Your task to perform on an android device: Search for "usb-c" on costco, select the first entry, add it to the cart, then select checkout. Image 0: 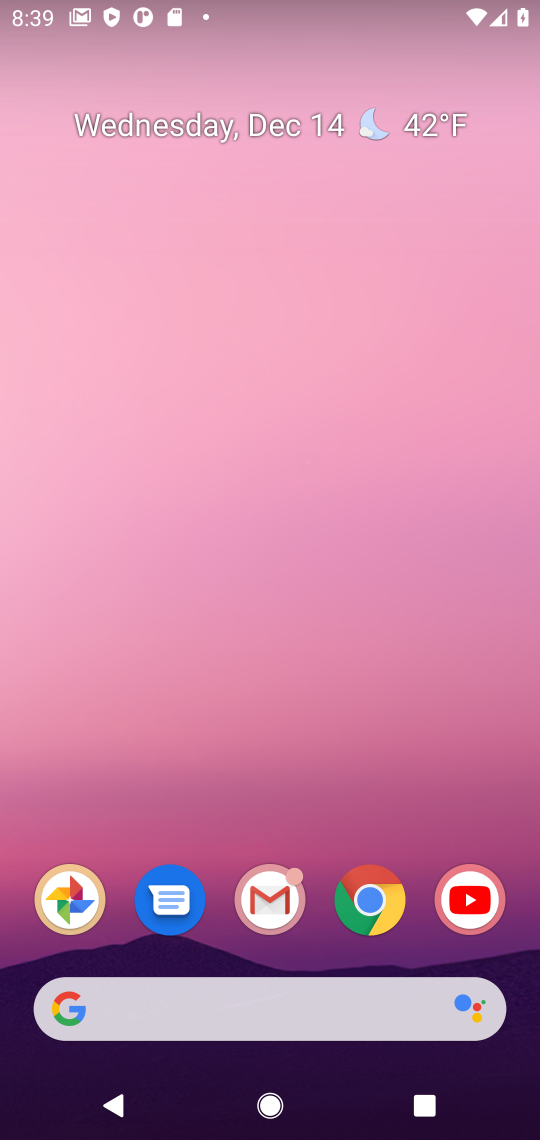
Step 0: click (366, 902)
Your task to perform on an android device: Search for "usb-c" on costco, select the first entry, add it to the cart, then select checkout. Image 1: 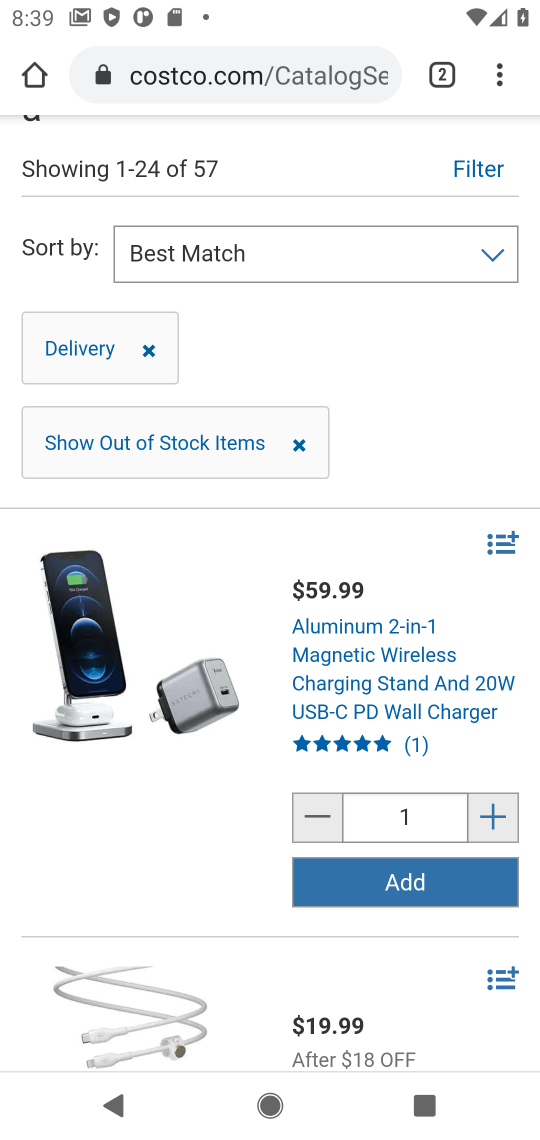
Step 1: press back button
Your task to perform on an android device: Search for "usb-c" on costco, select the first entry, add it to the cart, then select checkout. Image 2: 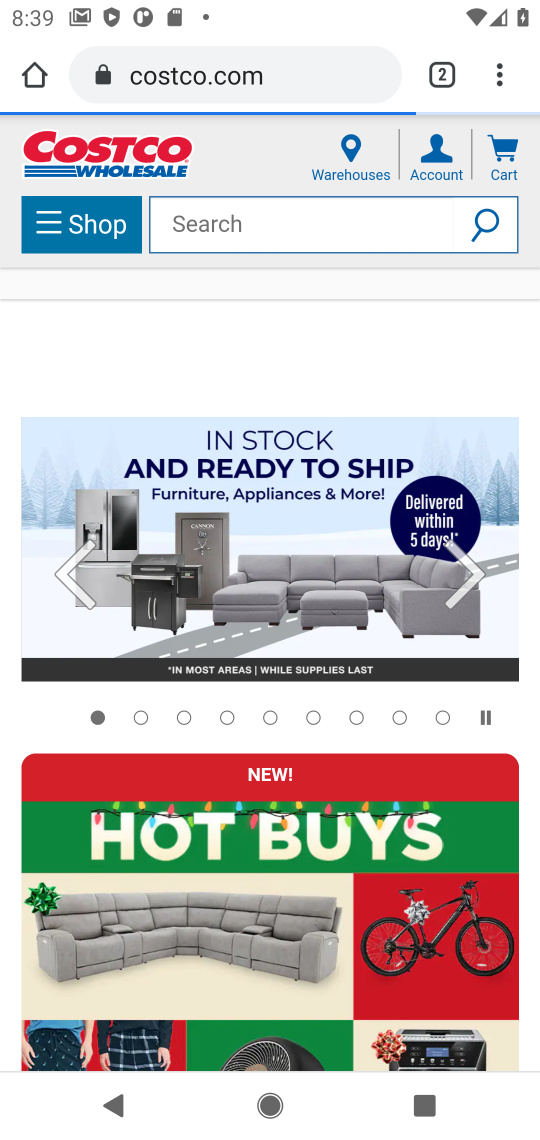
Step 2: click (365, 224)
Your task to perform on an android device: Search for "usb-c" on costco, select the first entry, add it to the cart, then select checkout. Image 3: 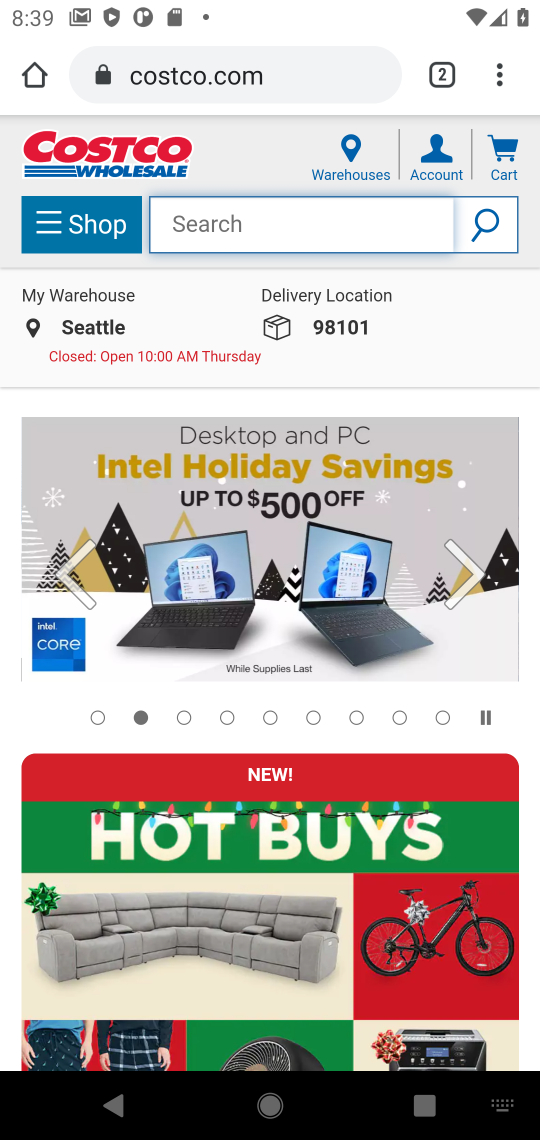
Step 3: type "usb-c"
Your task to perform on an android device: Search for "usb-c" on costco, select the first entry, add it to the cart, then select checkout. Image 4: 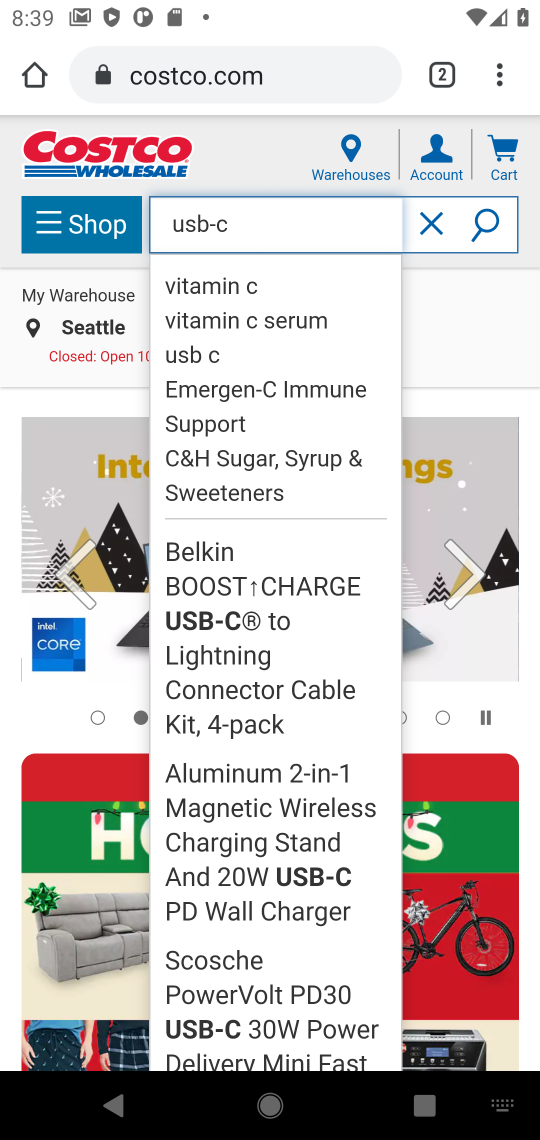
Step 4: click (498, 220)
Your task to perform on an android device: Search for "usb-c" on costco, select the first entry, add it to the cart, then select checkout. Image 5: 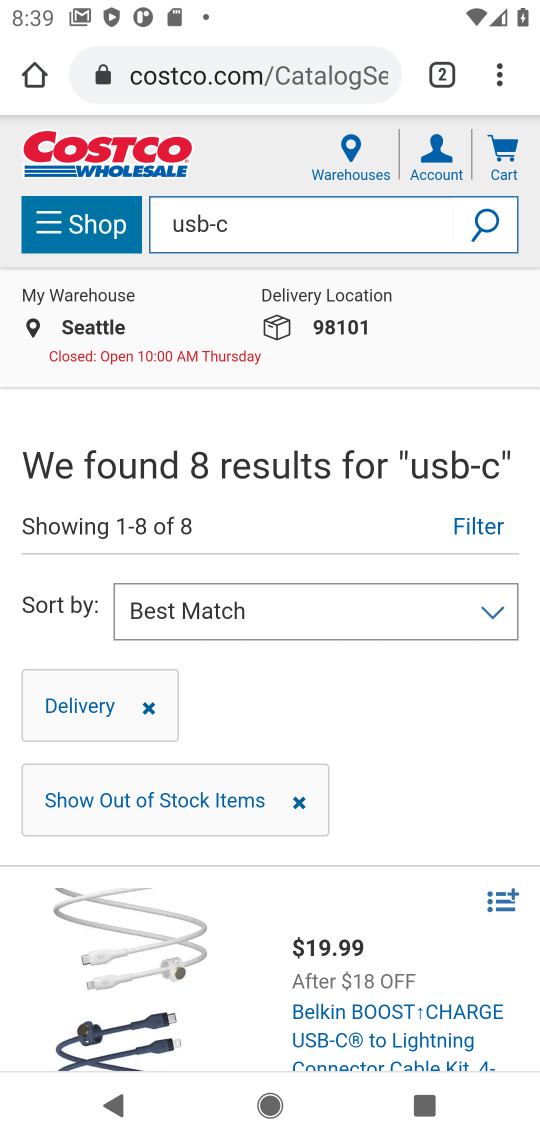
Step 5: drag from (409, 820) to (466, 521)
Your task to perform on an android device: Search for "usb-c" on costco, select the first entry, add it to the cart, then select checkout. Image 6: 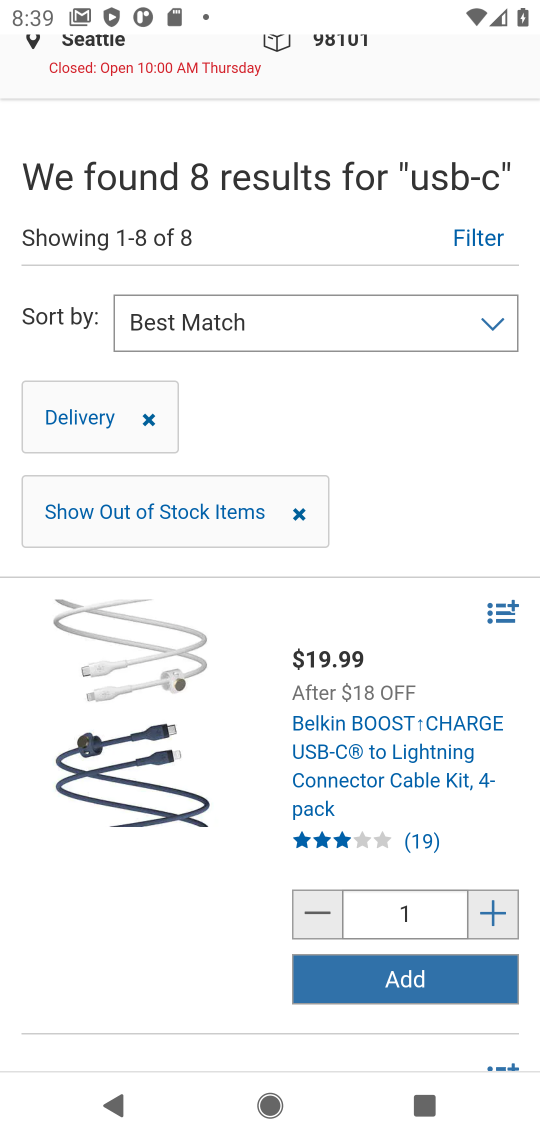
Step 6: click (345, 982)
Your task to perform on an android device: Search for "usb-c" on costco, select the first entry, add it to the cart, then select checkout. Image 7: 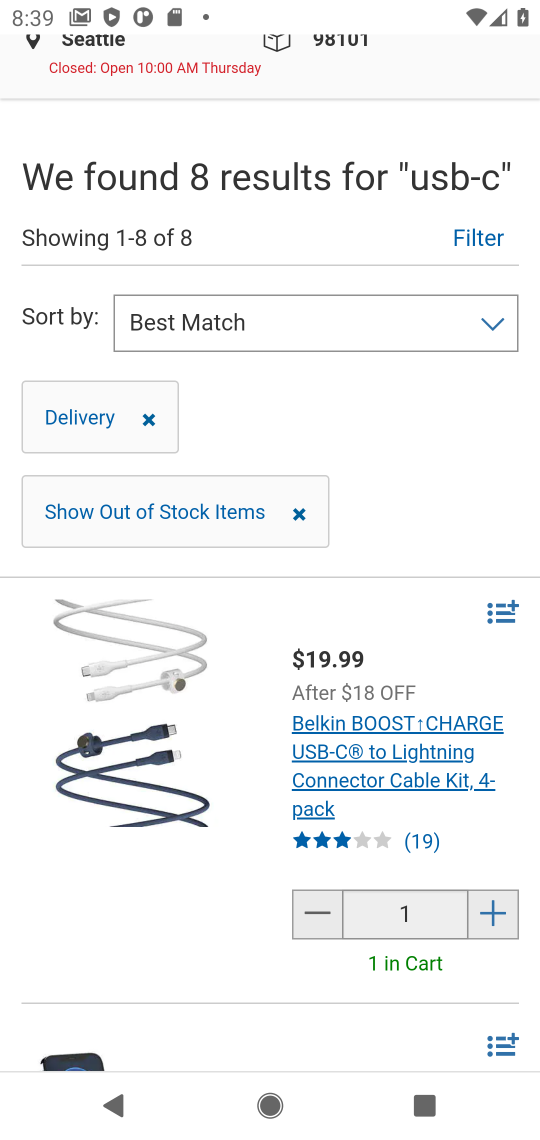
Step 7: drag from (178, 908) to (269, 542)
Your task to perform on an android device: Search for "usb-c" on costco, select the first entry, add it to the cart, then select checkout. Image 8: 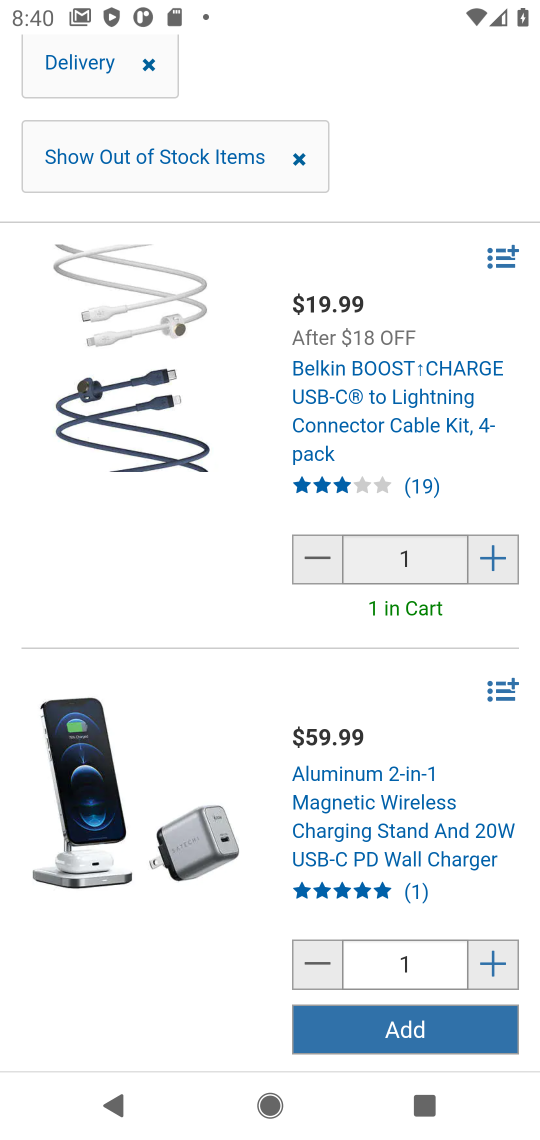
Step 8: drag from (175, 342) to (170, 681)
Your task to perform on an android device: Search for "usb-c" on costco, select the first entry, add it to the cart, then select checkout. Image 9: 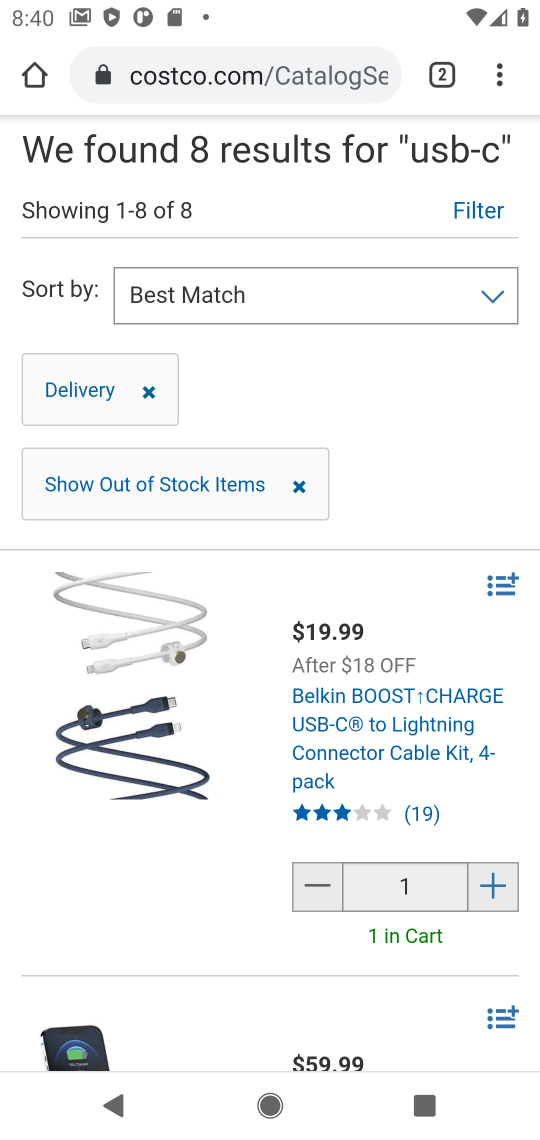
Step 9: drag from (233, 945) to (341, 166)
Your task to perform on an android device: Search for "usb-c" on costco, select the first entry, add it to the cart, then select checkout. Image 10: 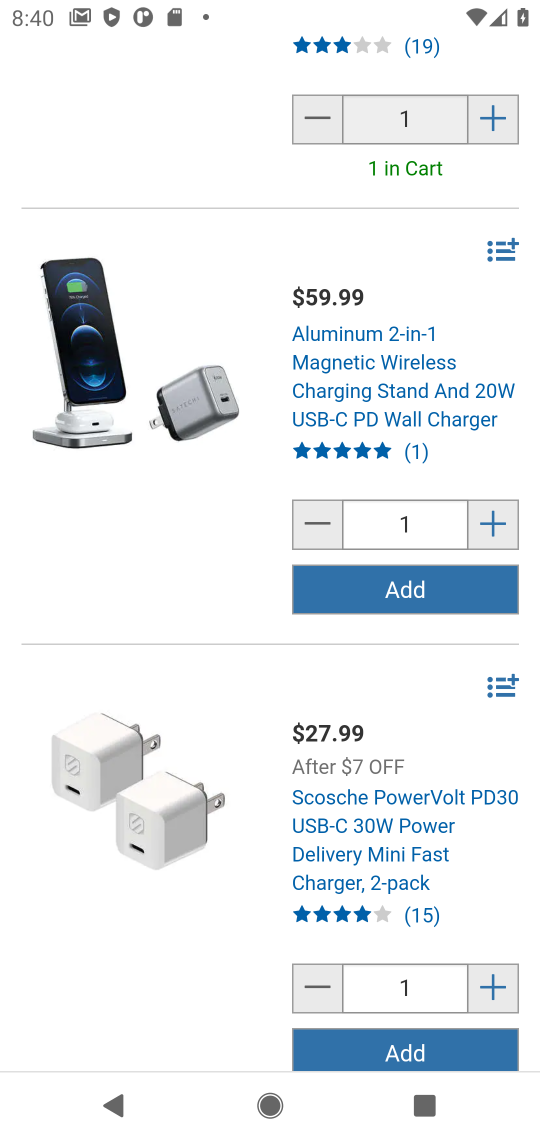
Step 10: drag from (193, 946) to (385, 199)
Your task to perform on an android device: Search for "usb-c" on costco, select the first entry, add it to the cart, then select checkout. Image 11: 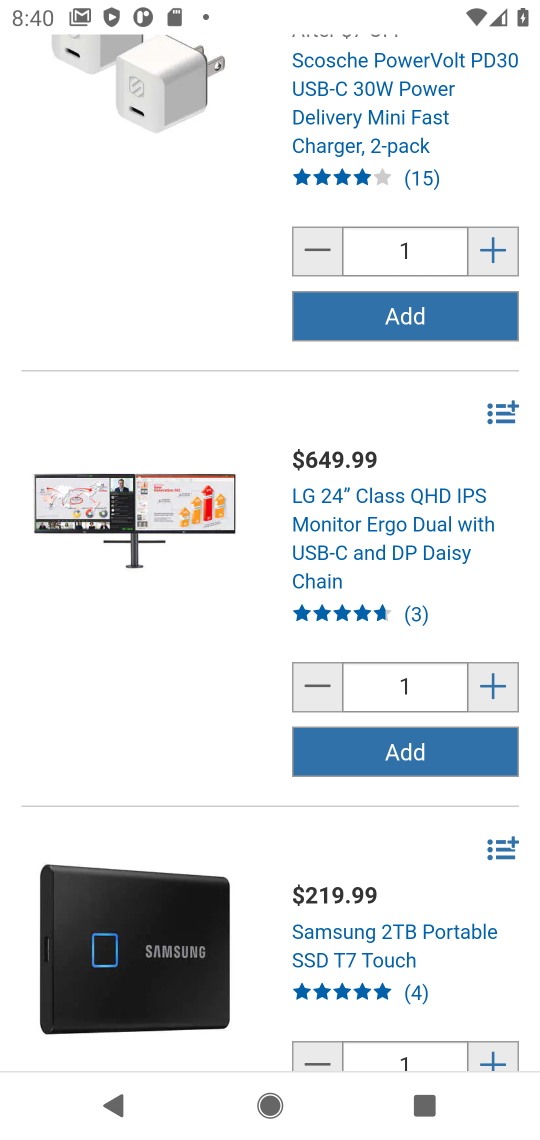
Step 11: drag from (146, 276) to (73, 1136)
Your task to perform on an android device: Search for "usb-c" on costco, select the first entry, add it to the cart, then select checkout. Image 12: 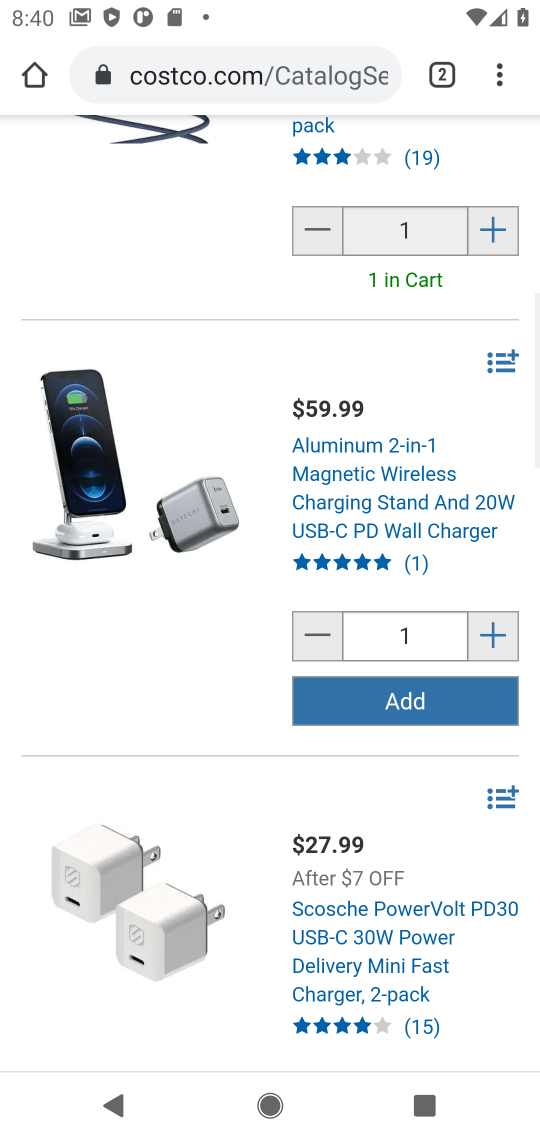
Step 12: drag from (214, 324) to (166, 979)
Your task to perform on an android device: Search for "usb-c" on costco, select the first entry, add it to the cart, then select checkout. Image 13: 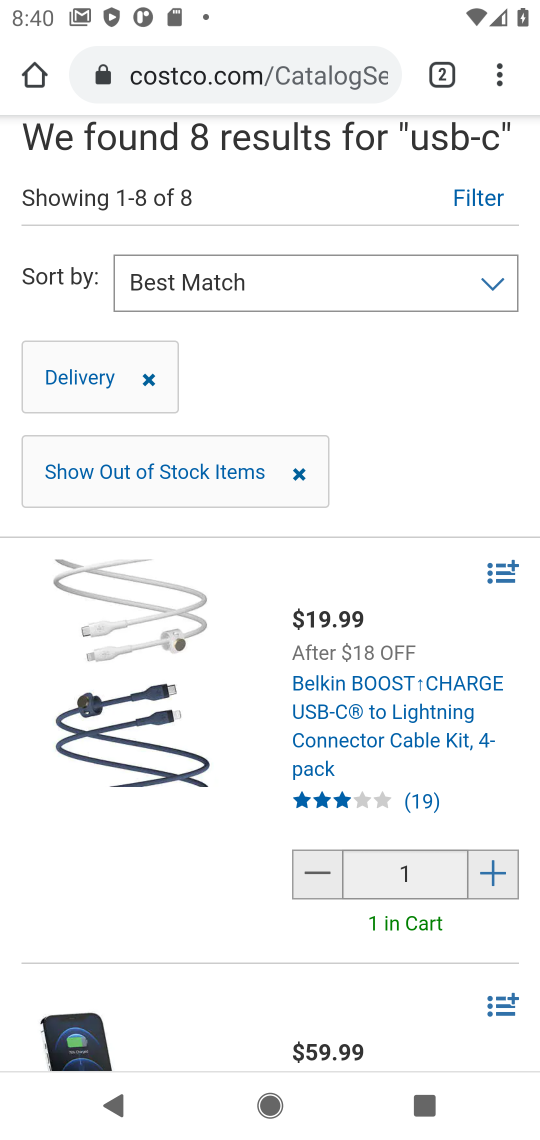
Step 13: drag from (390, 391) to (394, 836)
Your task to perform on an android device: Search for "usb-c" on costco, select the first entry, add it to the cart, then select checkout. Image 14: 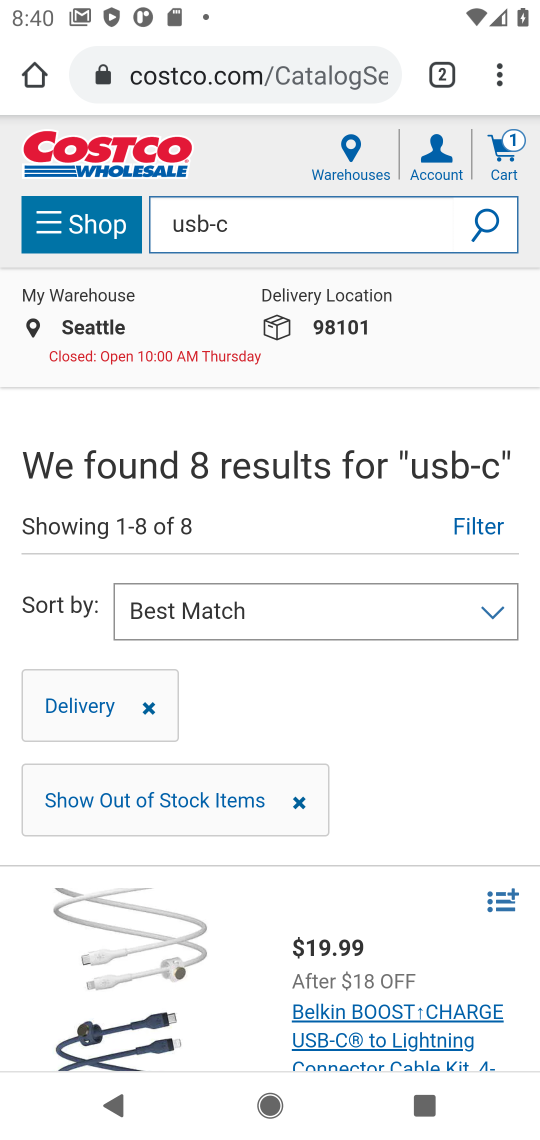
Step 14: click (512, 160)
Your task to perform on an android device: Search for "usb-c" on costco, select the first entry, add it to the cart, then select checkout. Image 15: 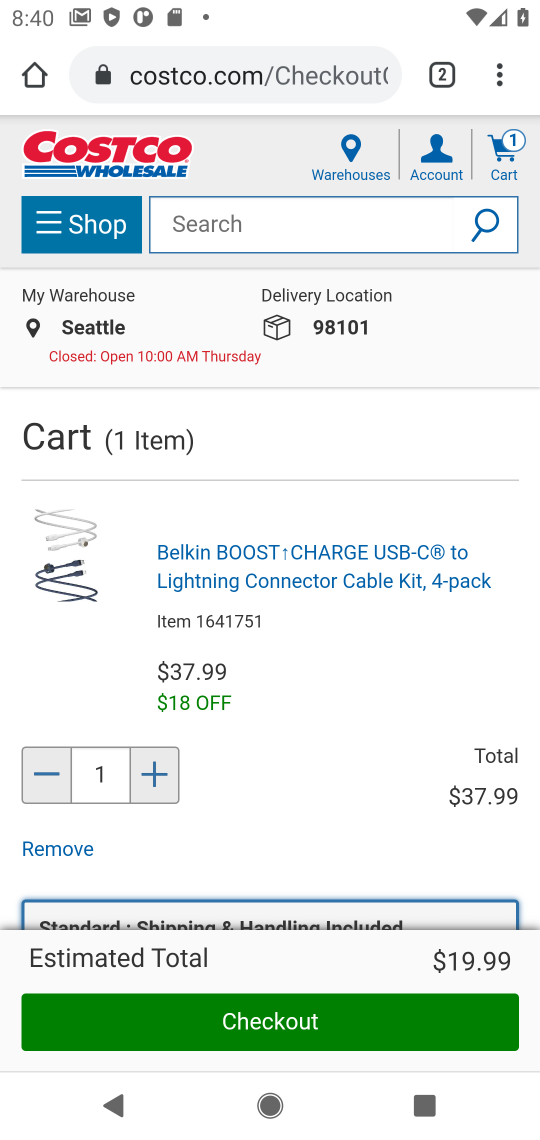
Step 15: click (291, 1028)
Your task to perform on an android device: Search for "usb-c" on costco, select the first entry, add it to the cart, then select checkout. Image 16: 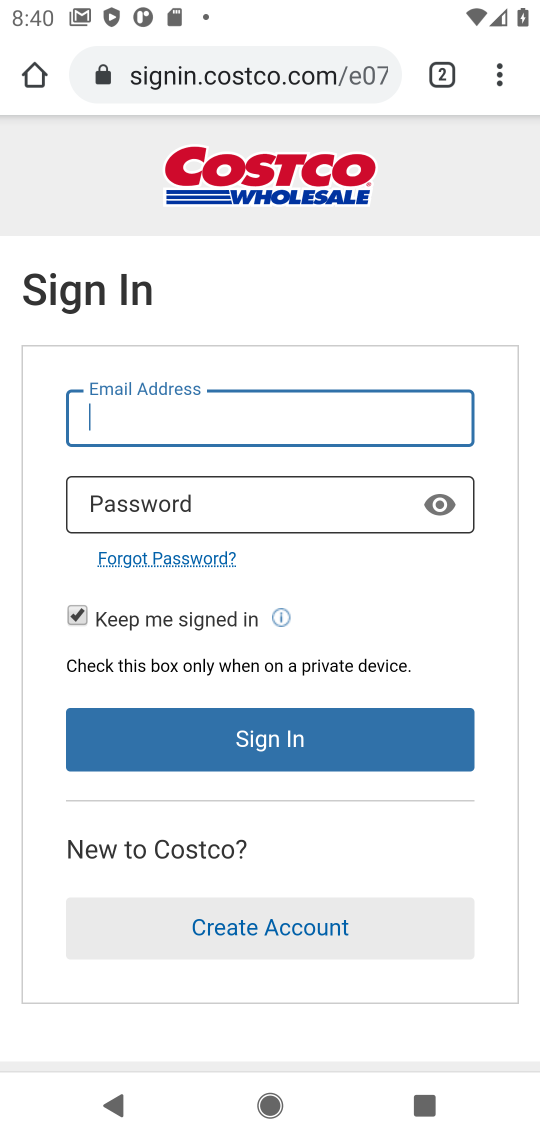
Step 16: task complete